Your task to perform on an android device: refresh tabs in the chrome app Image 0: 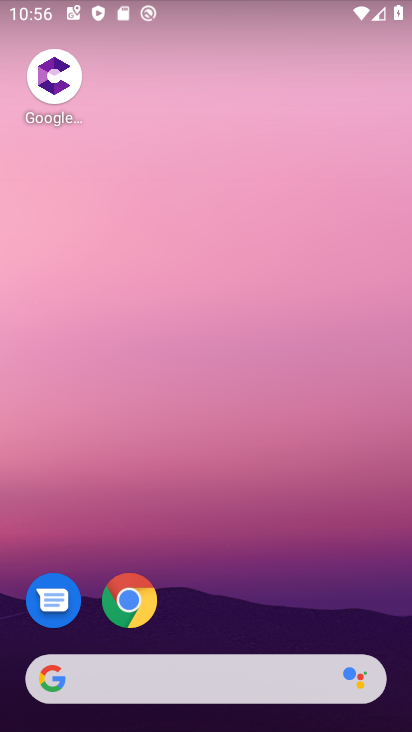
Step 0: click (134, 599)
Your task to perform on an android device: refresh tabs in the chrome app Image 1: 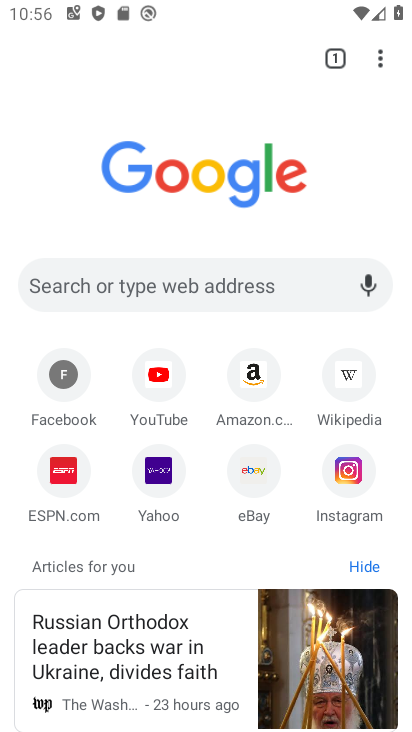
Step 1: click (341, 57)
Your task to perform on an android device: refresh tabs in the chrome app Image 2: 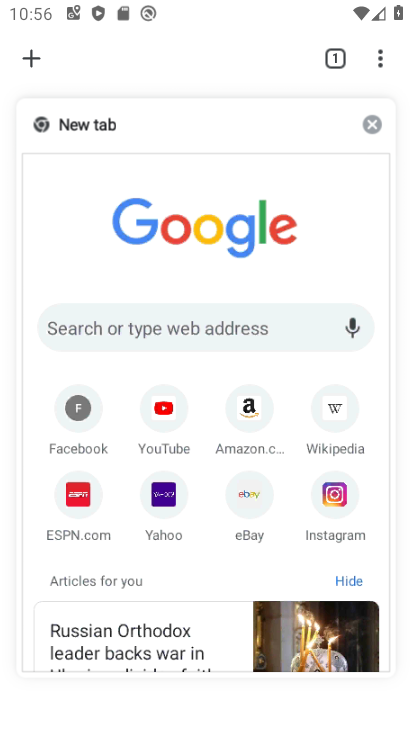
Step 2: click (296, 143)
Your task to perform on an android device: refresh tabs in the chrome app Image 3: 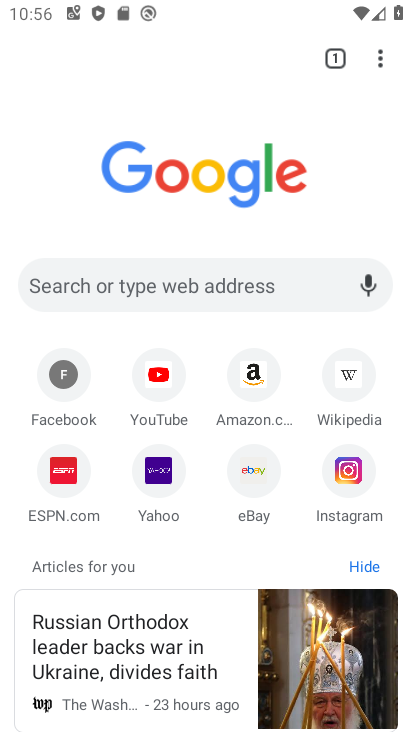
Step 3: click (378, 63)
Your task to perform on an android device: refresh tabs in the chrome app Image 4: 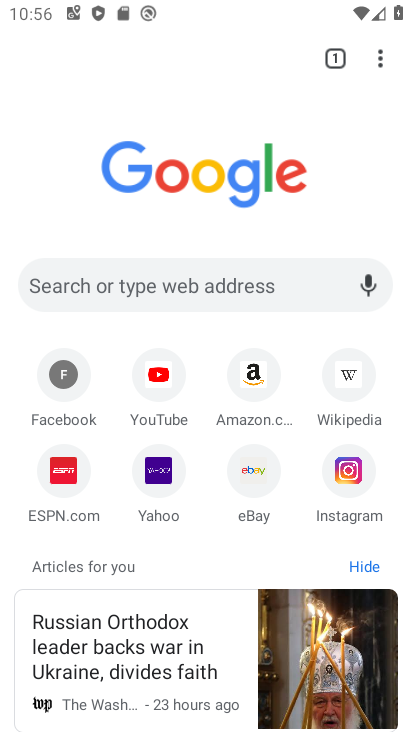
Step 4: click (378, 58)
Your task to perform on an android device: refresh tabs in the chrome app Image 5: 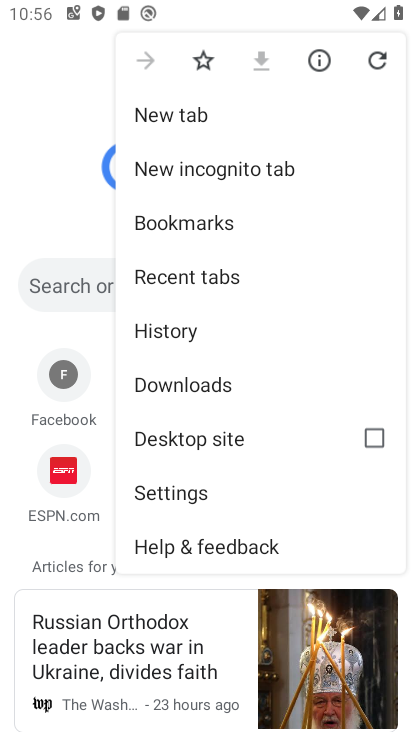
Step 5: click (378, 58)
Your task to perform on an android device: refresh tabs in the chrome app Image 6: 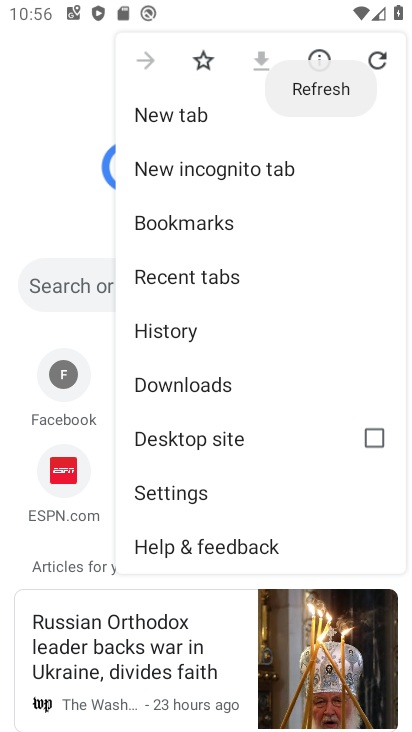
Step 6: click (378, 58)
Your task to perform on an android device: refresh tabs in the chrome app Image 7: 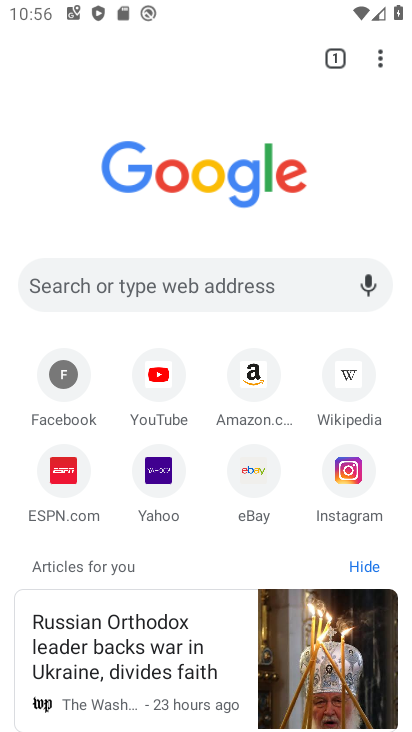
Step 7: task complete